Your task to perform on an android device: open app "Expedia: Hotels, Flights & Car" Image 0: 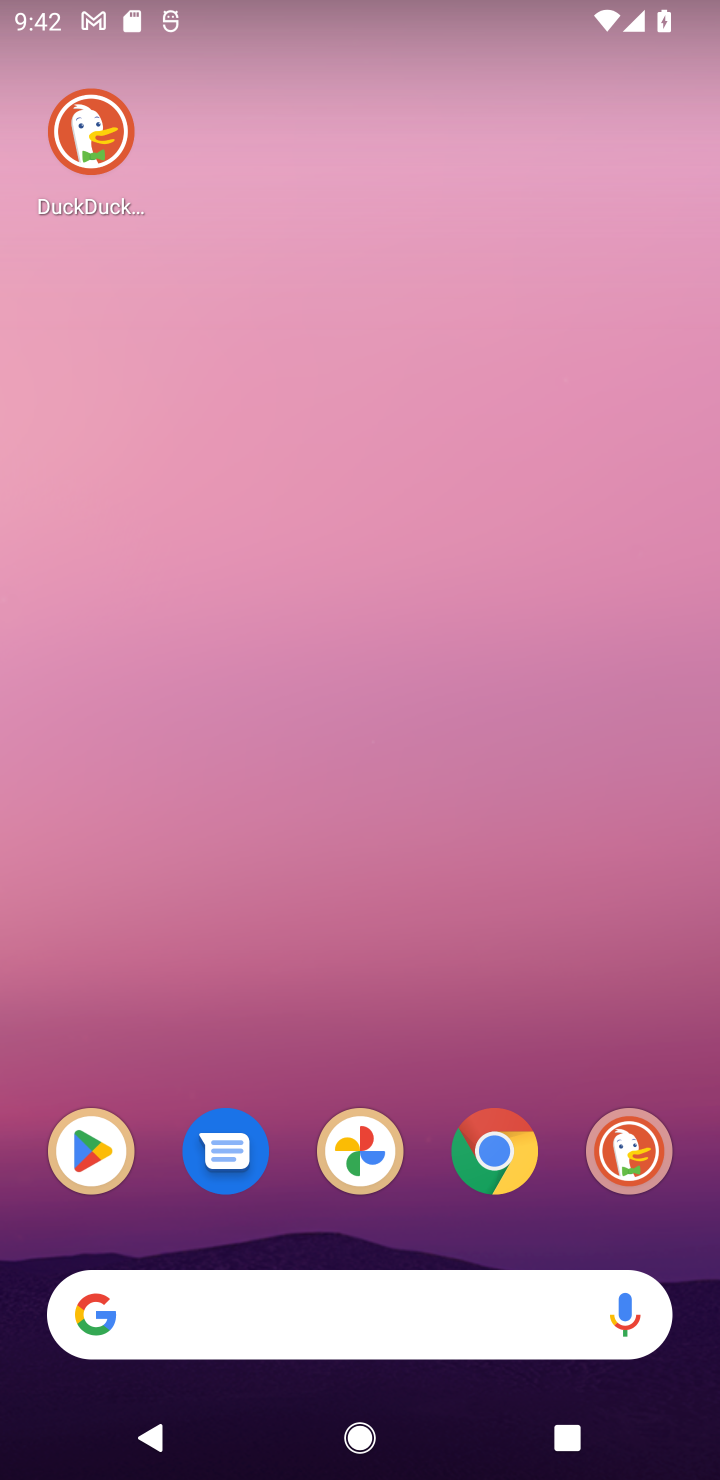
Step 0: click (87, 1158)
Your task to perform on an android device: open app "Expedia: Hotels, Flights & Car" Image 1: 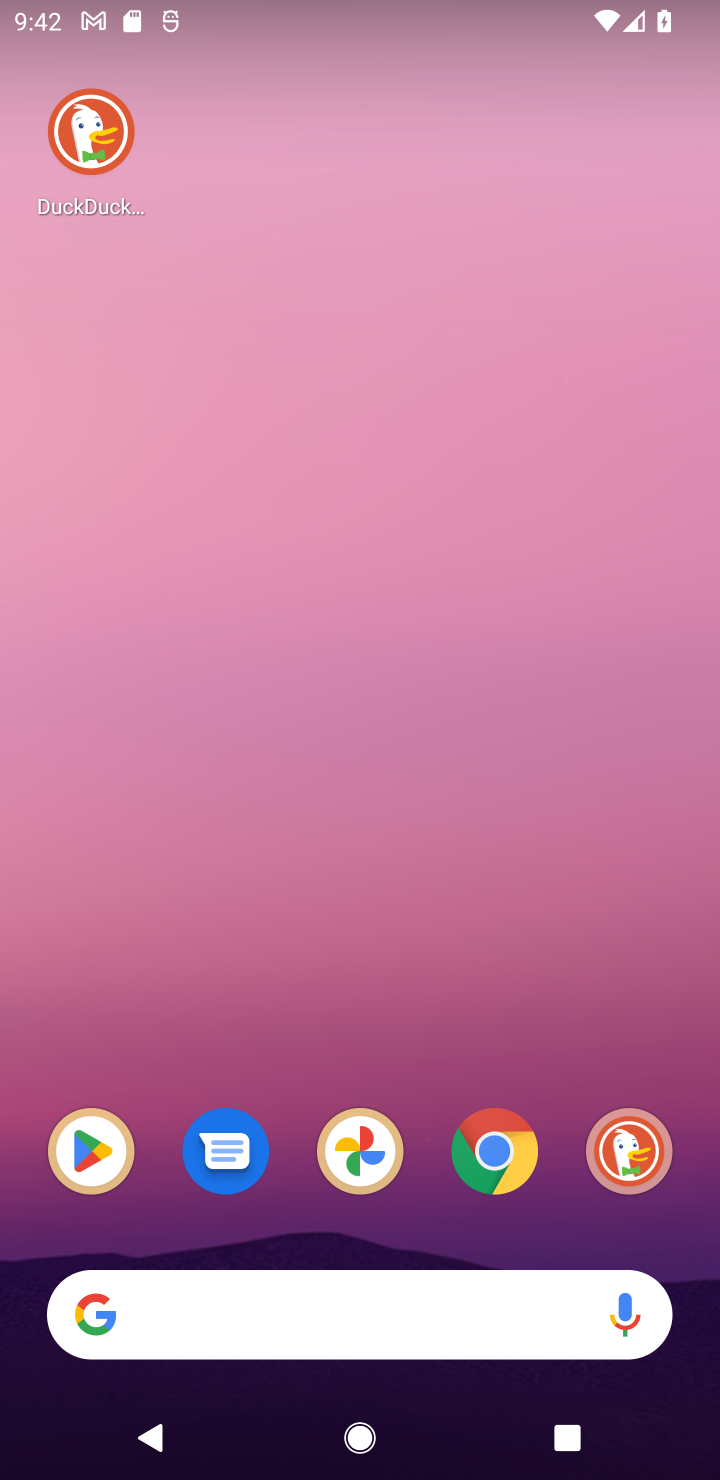
Step 1: drag from (419, 1243) to (382, 215)
Your task to perform on an android device: open app "Expedia: Hotels, Flights & Car" Image 2: 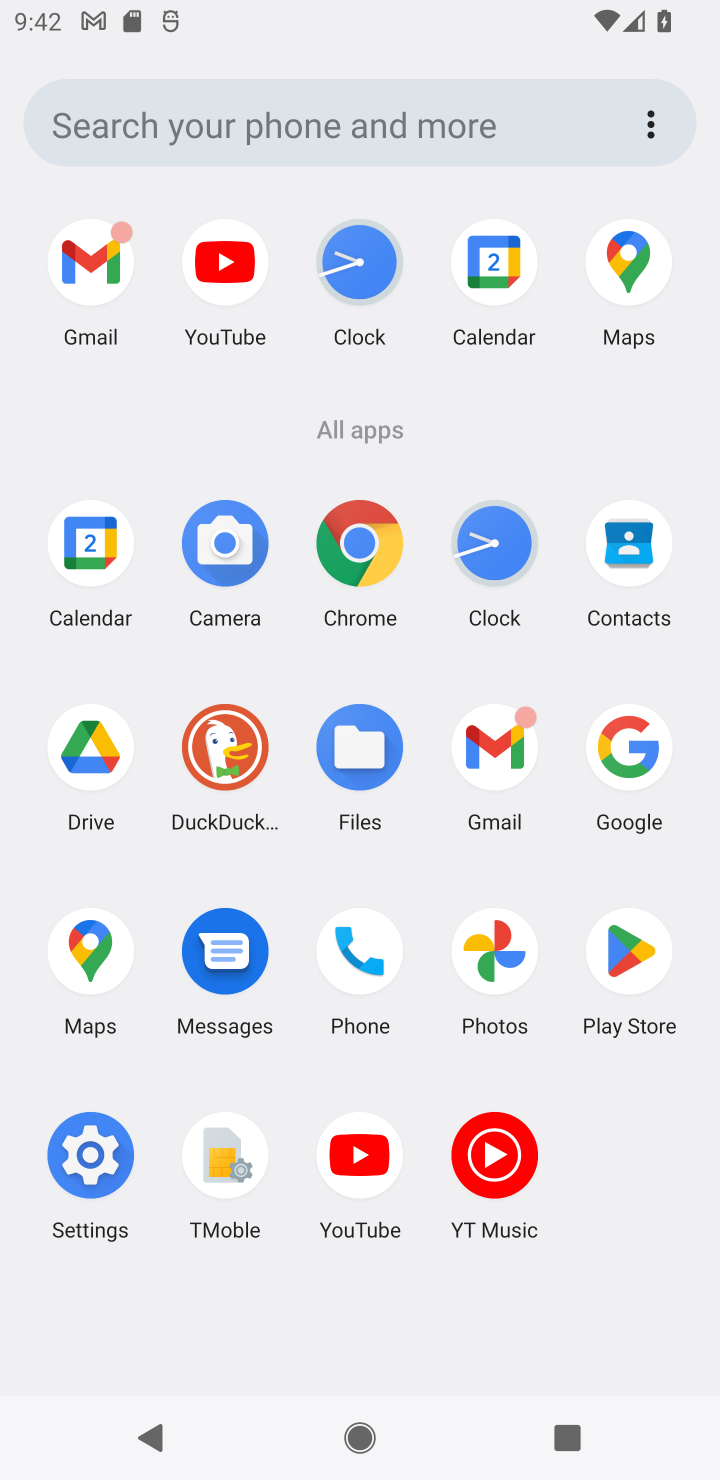
Step 2: click (630, 937)
Your task to perform on an android device: open app "Expedia: Hotels, Flights & Car" Image 3: 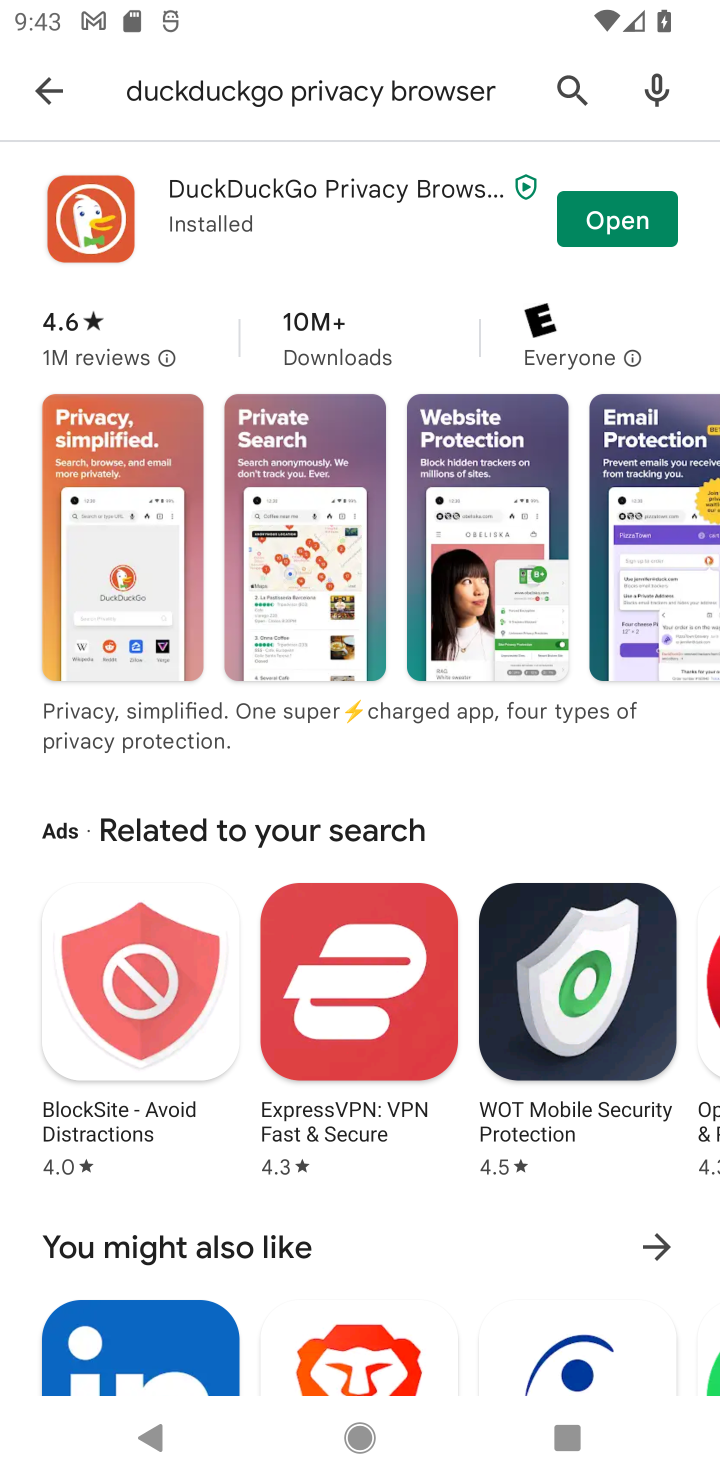
Step 3: click (28, 95)
Your task to perform on an android device: open app "Expedia: Hotels, Flights & Car" Image 4: 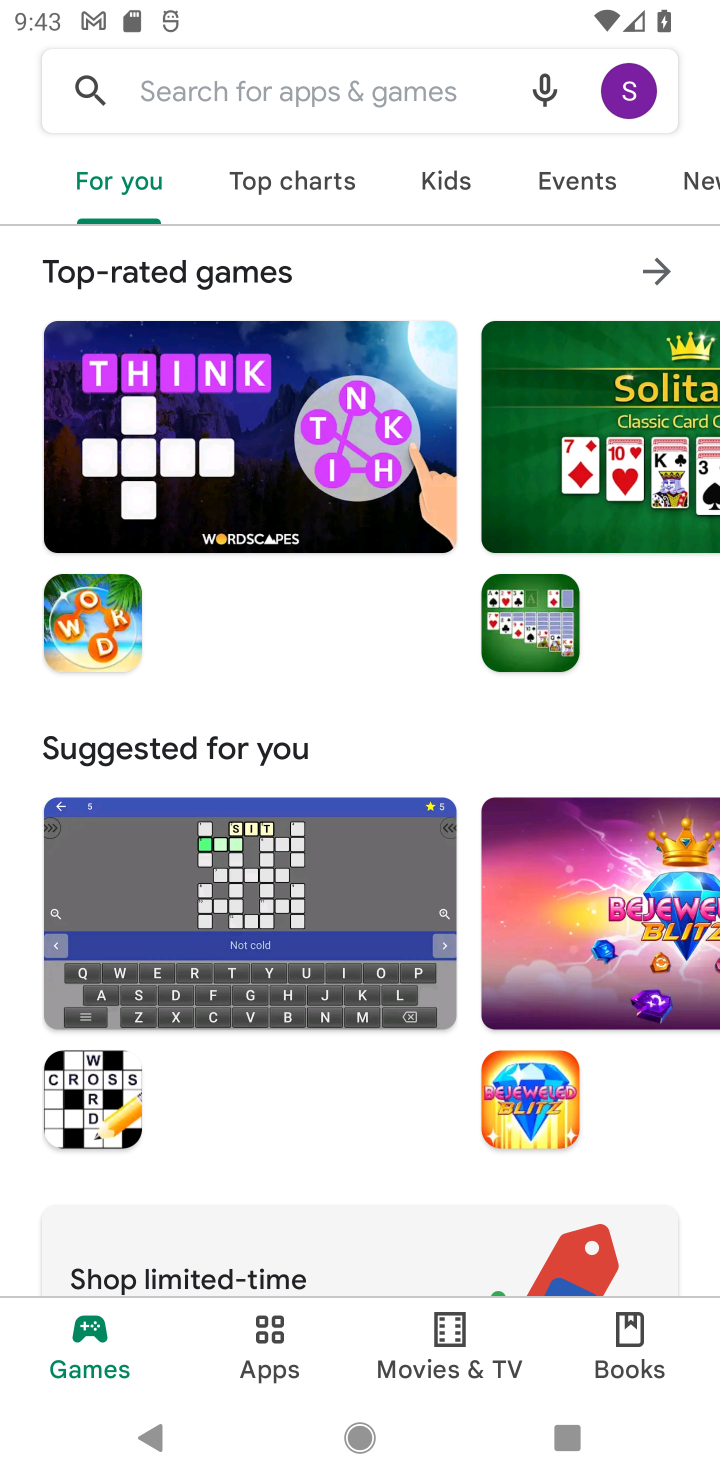
Step 4: click (174, 71)
Your task to perform on an android device: open app "Expedia: Hotels, Flights & Car" Image 5: 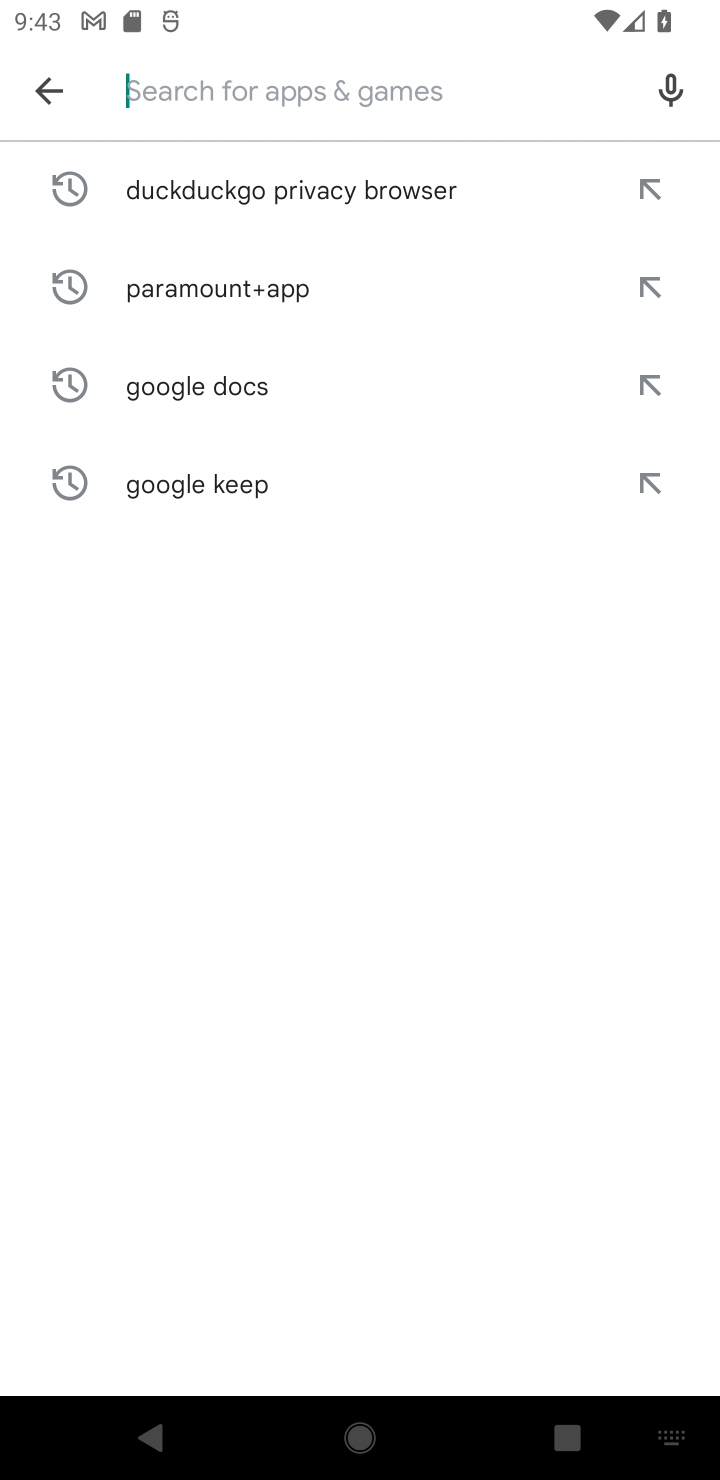
Step 5: type "Expedia: Hotels, Flights & Car"
Your task to perform on an android device: open app "Expedia: Hotels, Flights & Car" Image 6: 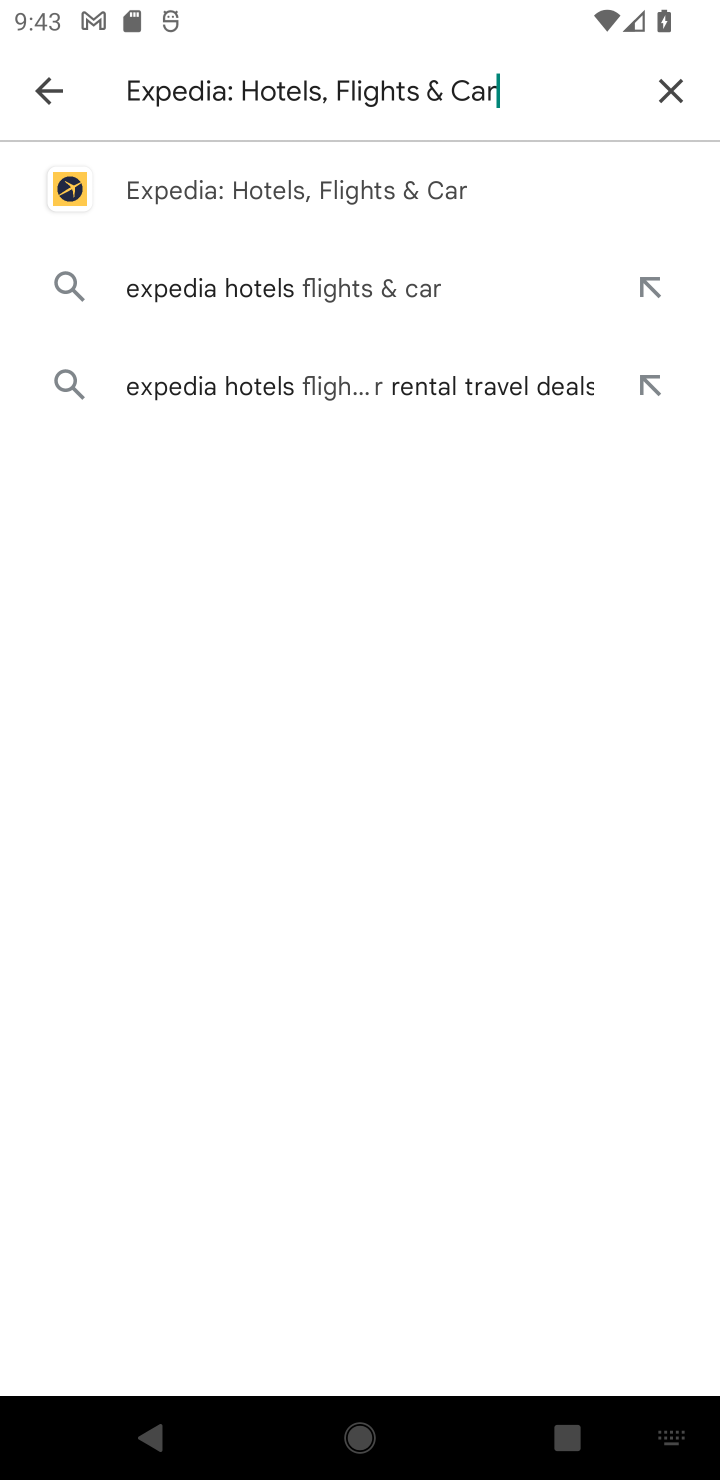
Step 6: click (181, 194)
Your task to perform on an android device: open app "Expedia: Hotels, Flights & Car" Image 7: 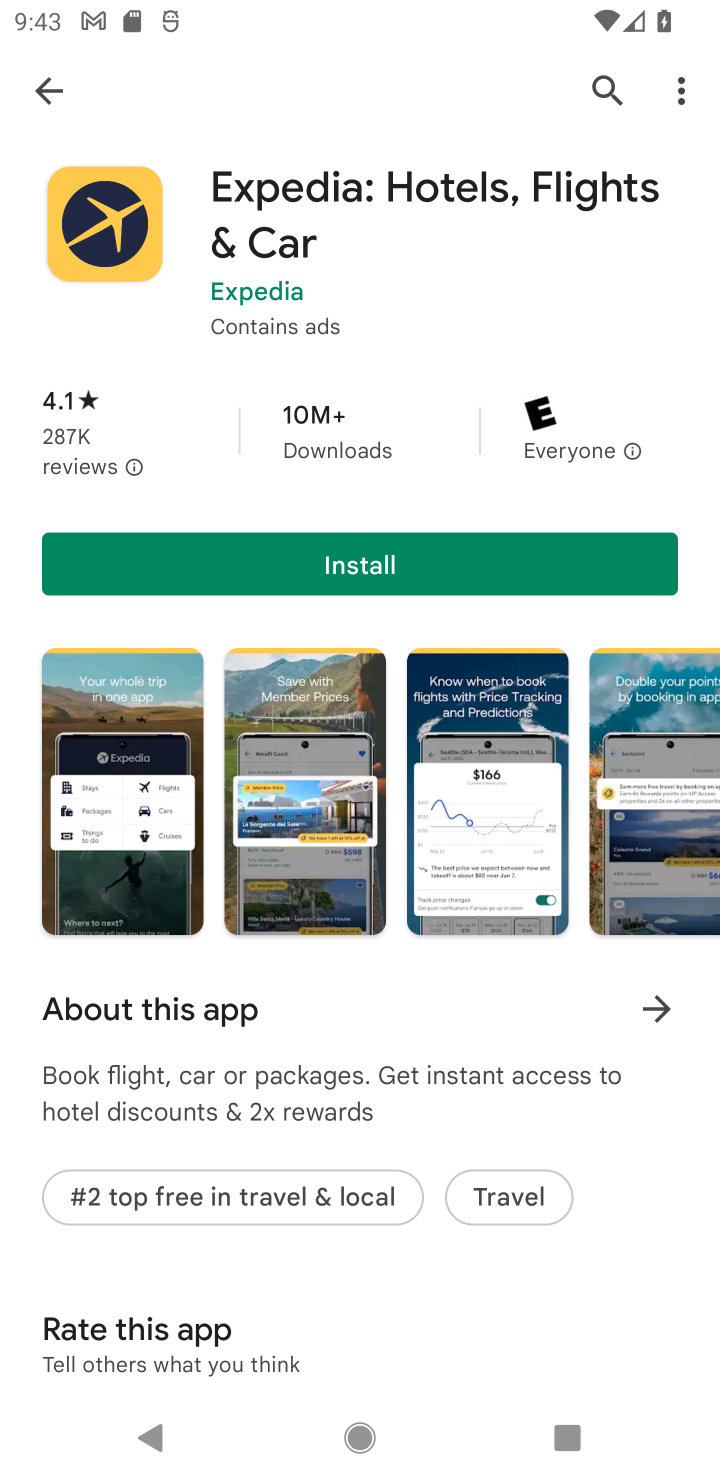
Step 7: task complete